Your task to perform on an android device: Open the calendar and show me this week's events? Image 0: 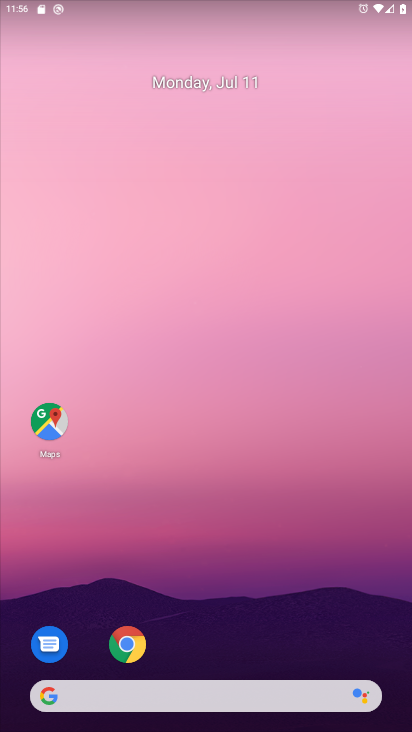
Step 0: drag from (228, 620) to (256, 171)
Your task to perform on an android device: Open the calendar and show me this week's events? Image 1: 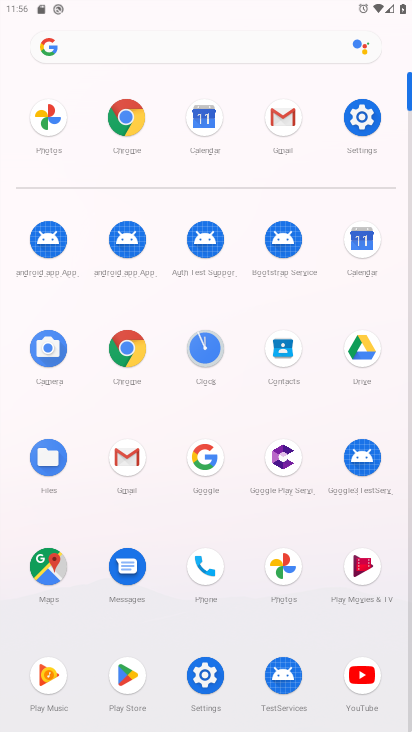
Step 1: click (363, 240)
Your task to perform on an android device: Open the calendar and show me this week's events? Image 2: 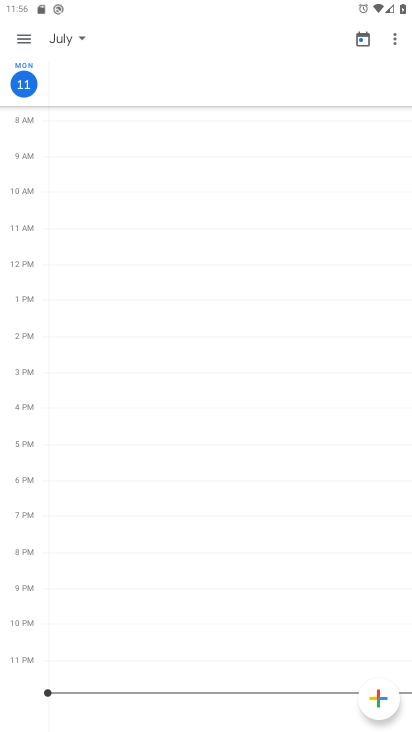
Step 2: click (64, 31)
Your task to perform on an android device: Open the calendar and show me this week's events? Image 3: 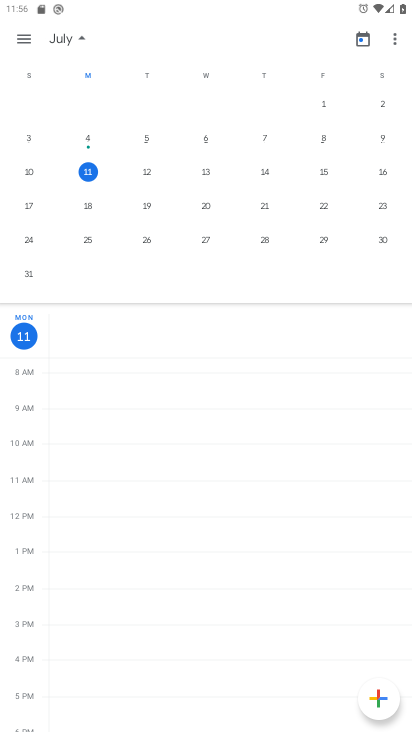
Step 3: click (29, 40)
Your task to perform on an android device: Open the calendar and show me this week's events? Image 4: 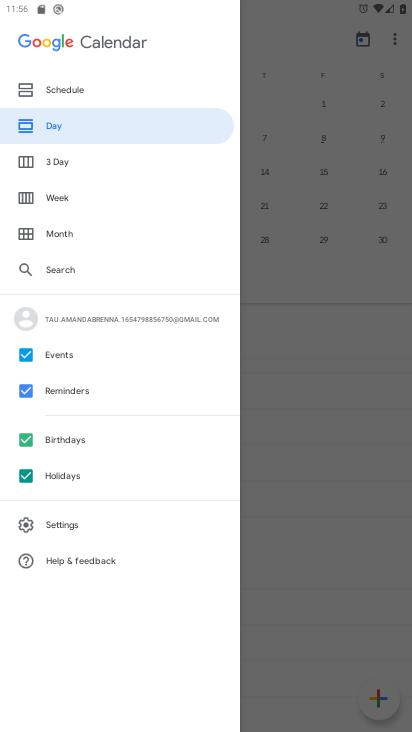
Step 4: click (54, 87)
Your task to perform on an android device: Open the calendar and show me this week's events? Image 5: 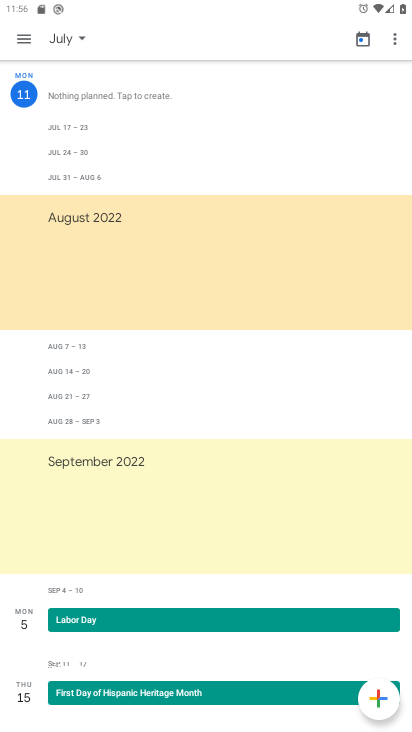
Step 5: click (67, 37)
Your task to perform on an android device: Open the calendar and show me this week's events? Image 6: 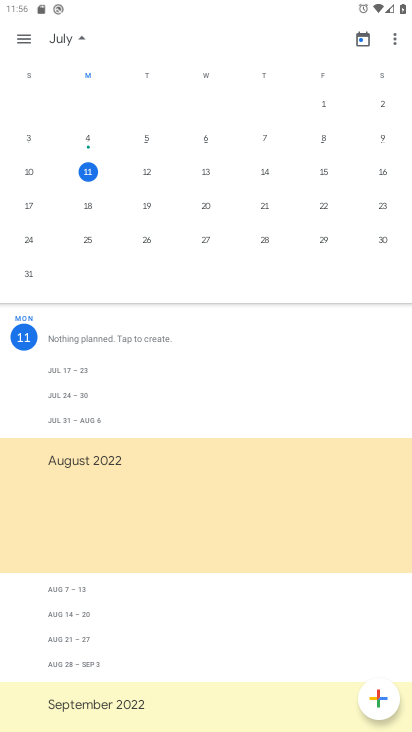
Step 6: click (83, 170)
Your task to perform on an android device: Open the calendar and show me this week's events? Image 7: 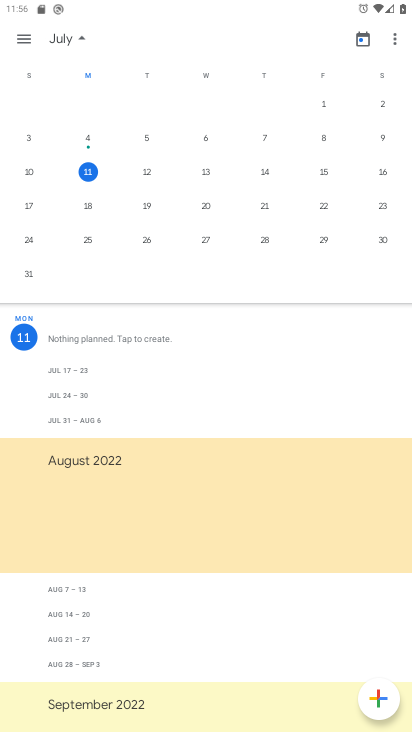
Step 7: click (145, 170)
Your task to perform on an android device: Open the calendar and show me this week's events? Image 8: 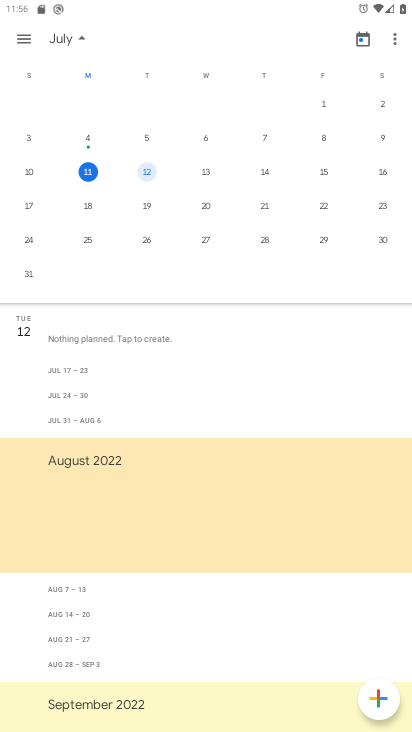
Step 8: click (212, 173)
Your task to perform on an android device: Open the calendar and show me this week's events? Image 9: 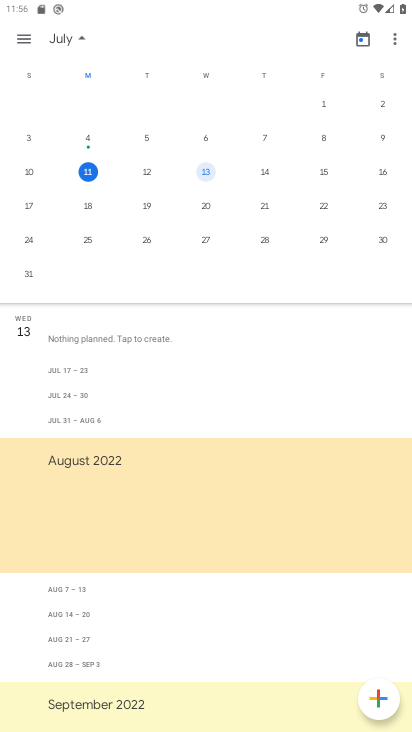
Step 9: click (262, 174)
Your task to perform on an android device: Open the calendar and show me this week's events? Image 10: 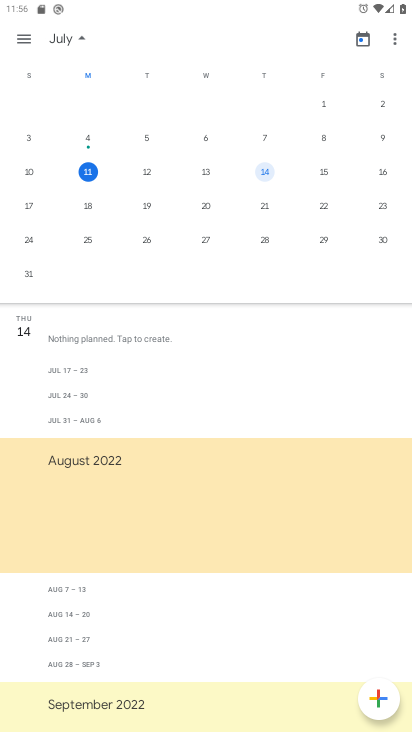
Step 10: click (275, 174)
Your task to perform on an android device: Open the calendar and show me this week's events? Image 11: 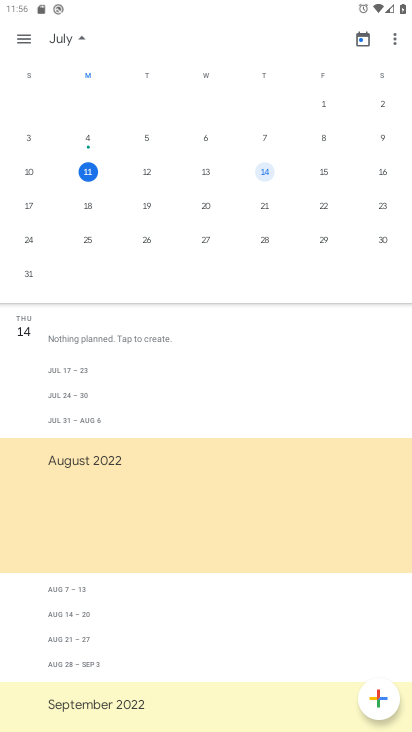
Step 11: click (322, 172)
Your task to perform on an android device: Open the calendar and show me this week's events? Image 12: 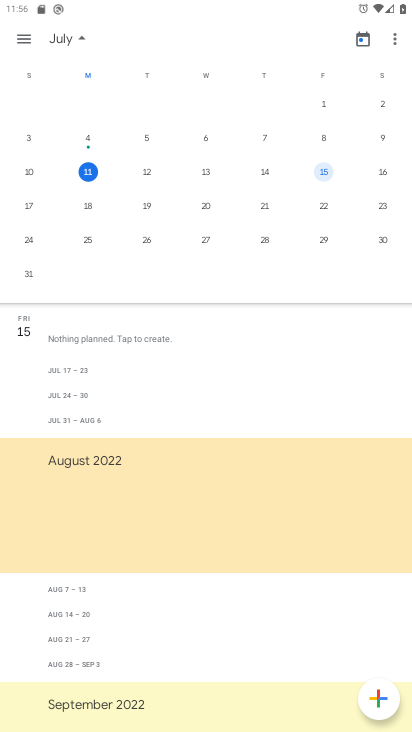
Step 12: click (391, 172)
Your task to perform on an android device: Open the calendar and show me this week's events? Image 13: 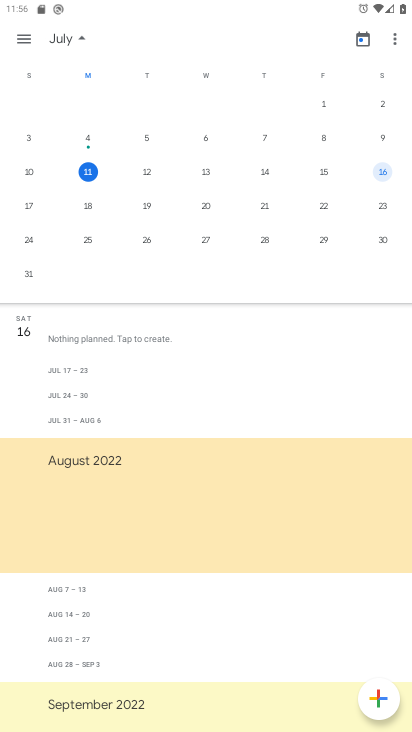
Step 13: task complete